Your task to perform on an android device: What's on my calendar tomorrow? Image 0: 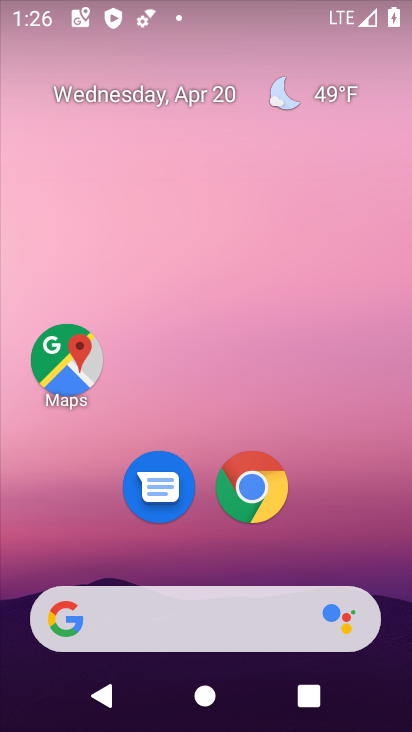
Step 0: drag from (384, 535) to (345, 180)
Your task to perform on an android device: What's on my calendar tomorrow? Image 1: 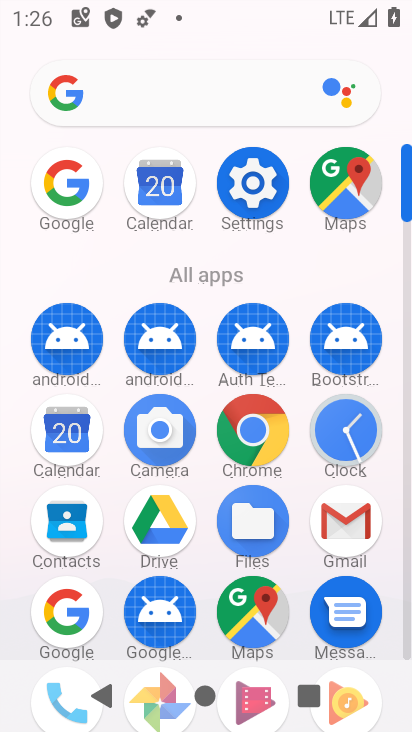
Step 1: click (176, 210)
Your task to perform on an android device: What's on my calendar tomorrow? Image 2: 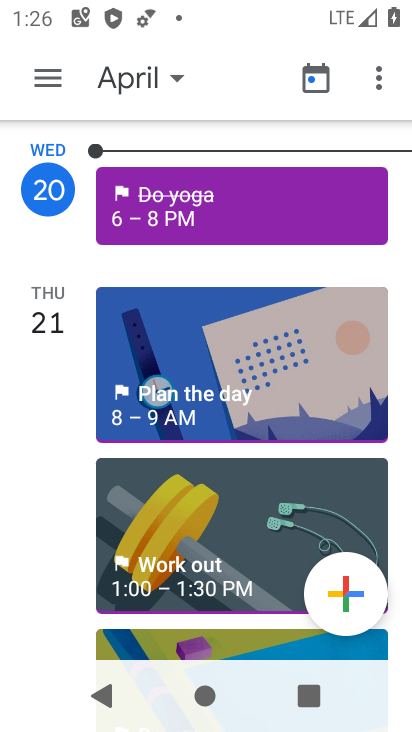
Step 2: click (167, 85)
Your task to perform on an android device: What's on my calendar tomorrow? Image 3: 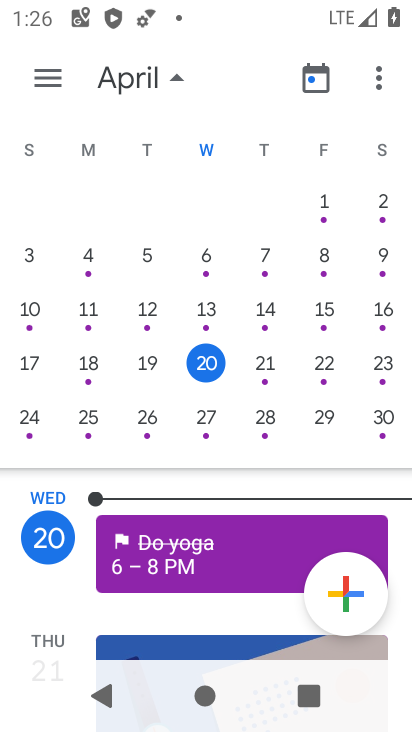
Step 3: click (266, 365)
Your task to perform on an android device: What's on my calendar tomorrow? Image 4: 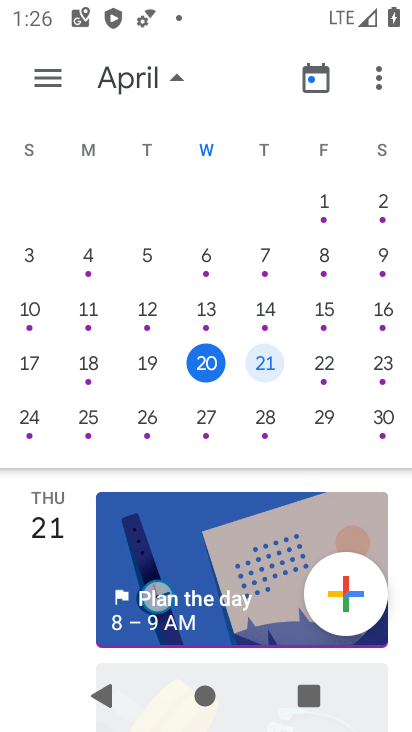
Step 4: click (166, 64)
Your task to perform on an android device: What's on my calendar tomorrow? Image 5: 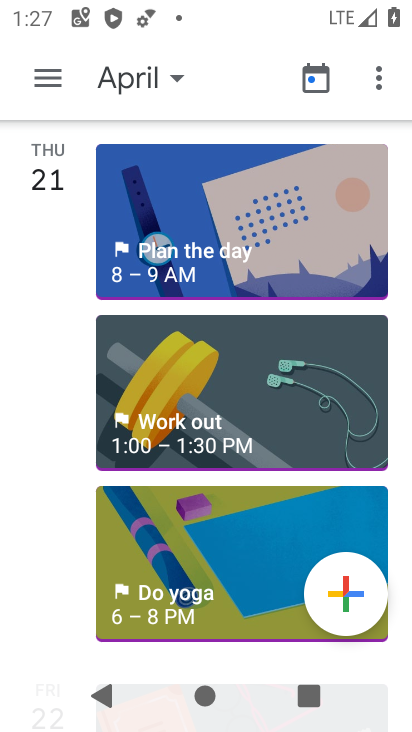
Step 5: task complete